Your task to perform on an android device: Open my contact list Image 0: 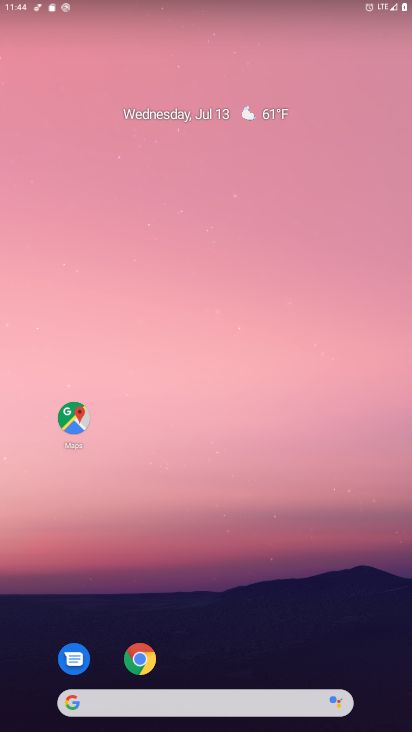
Step 0: press home button
Your task to perform on an android device: Open my contact list Image 1: 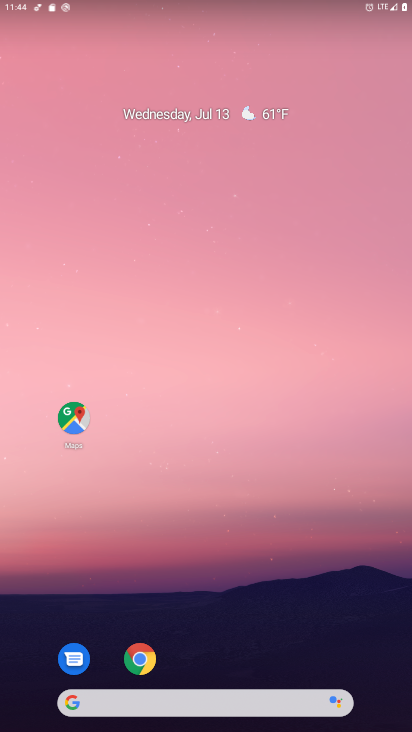
Step 1: drag from (215, 668) to (204, 46)
Your task to perform on an android device: Open my contact list Image 2: 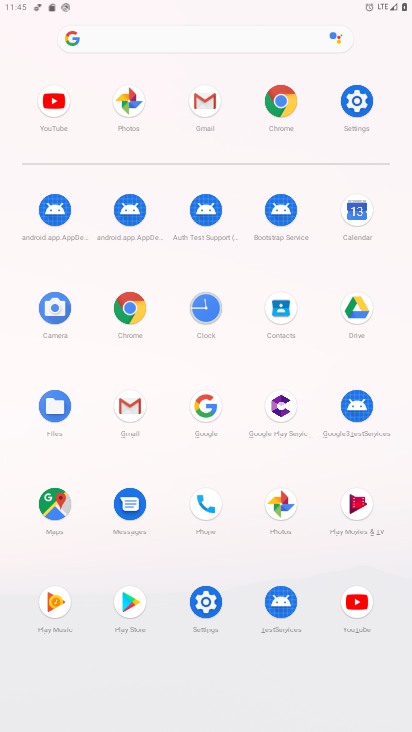
Step 2: click (278, 302)
Your task to perform on an android device: Open my contact list Image 3: 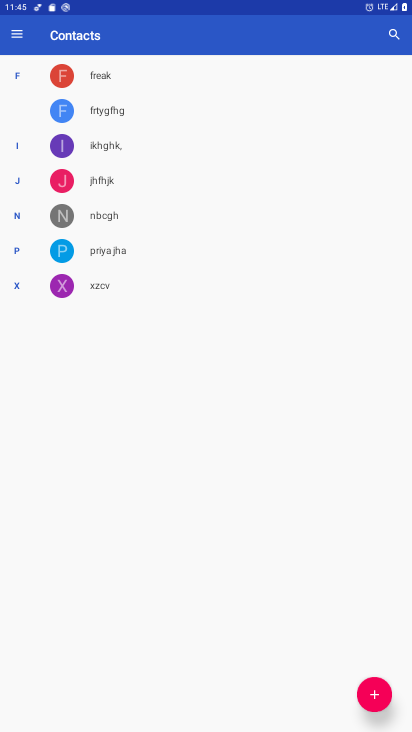
Step 3: task complete